Your task to perform on an android device: Go to Reddit.com Image 0: 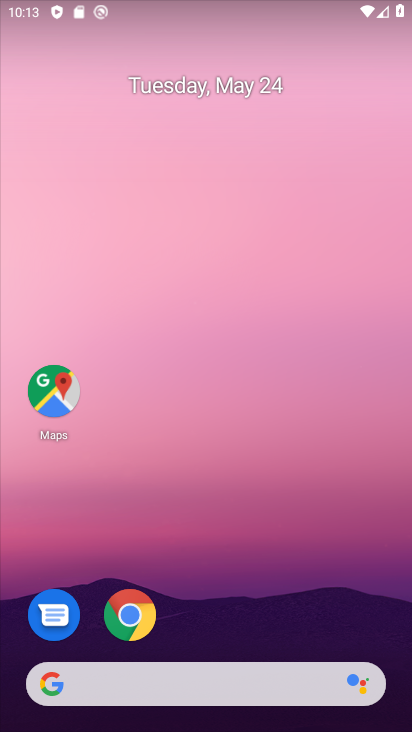
Step 0: click (138, 622)
Your task to perform on an android device: Go to Reddit.com Image 1: 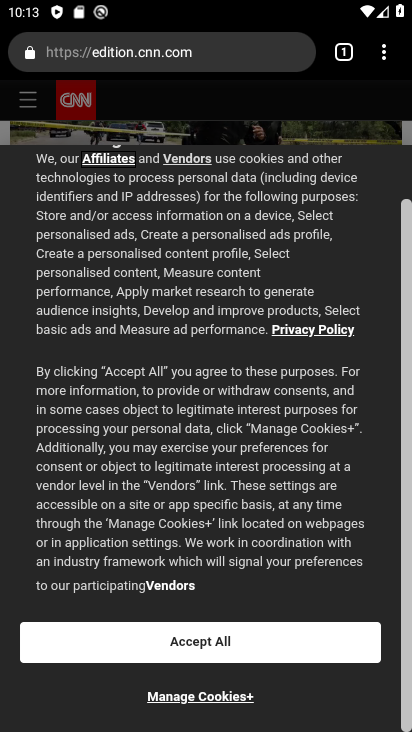
Step 1: click (334, 46)
Your task to perform on an android device: Go to Reddit.com Image 2: 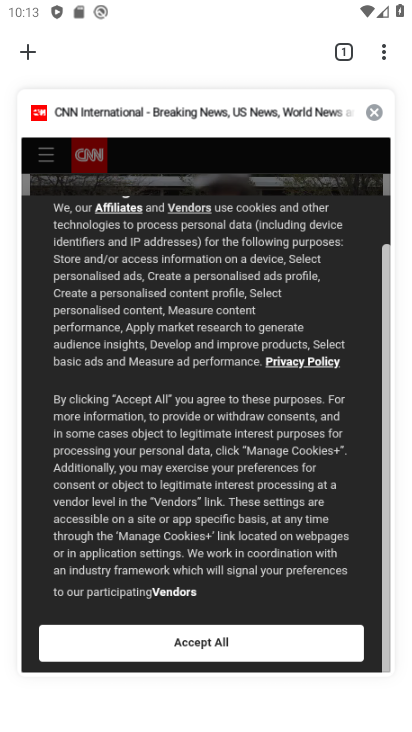
Step 2: click (26, 38)
Your task to perform on an android device: Go to Reddit.com Image 3: 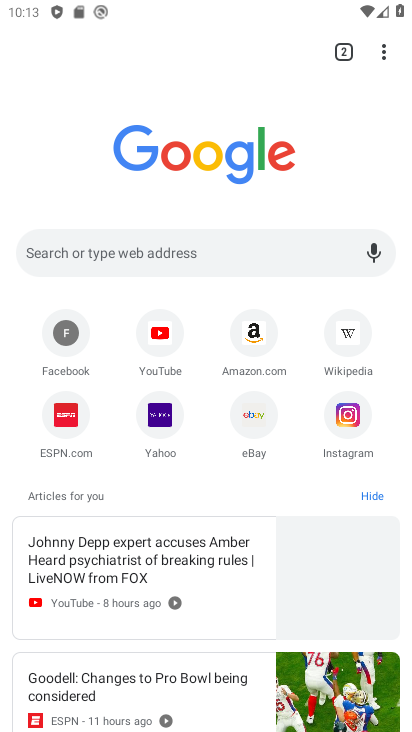
Step 3: click (182, 253)
Your task to perform on an android device: Go to Reddit.com Image 4: 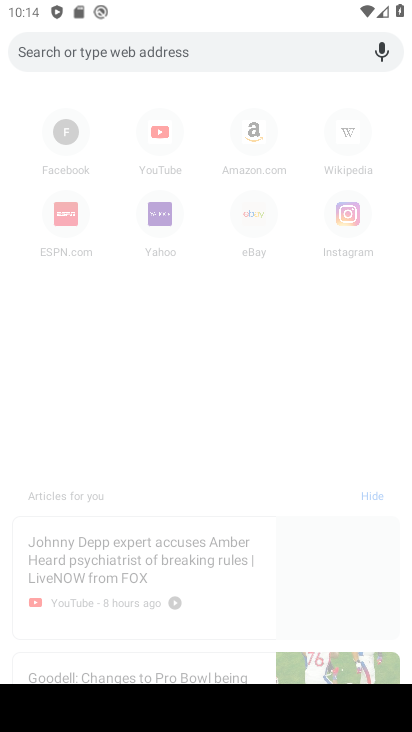
Step 4: type "Reddit.com"
Your task to perform on an android device: Go to Reddit.com Image 5: 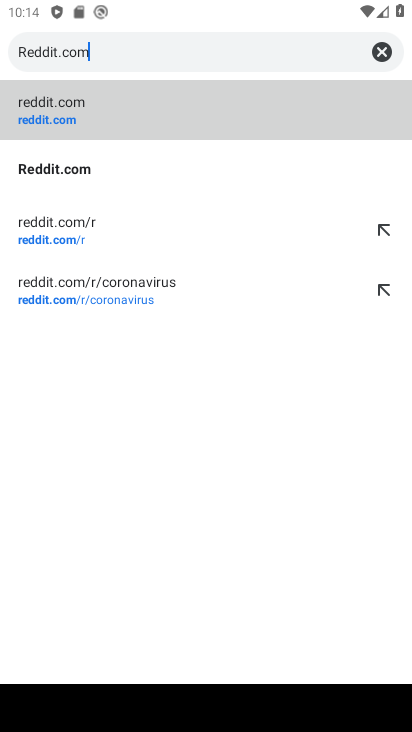
Step 5: click (318, 112)
Your task to perform on an android device: Go to Reddit.com Image 6: 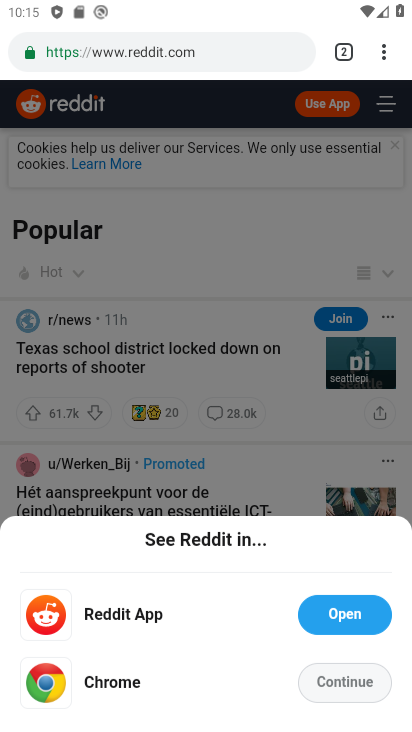
Step 6: task complete